Your task to perform on an android device: Go to privacy settings Image 0: 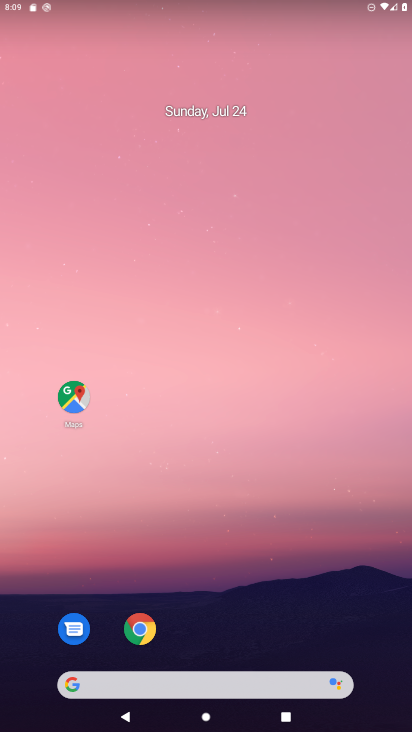
Step 0: drag from (367, 691) to (211, 6)
Your task to perform on an android device: Go to privacy settings Image 1: 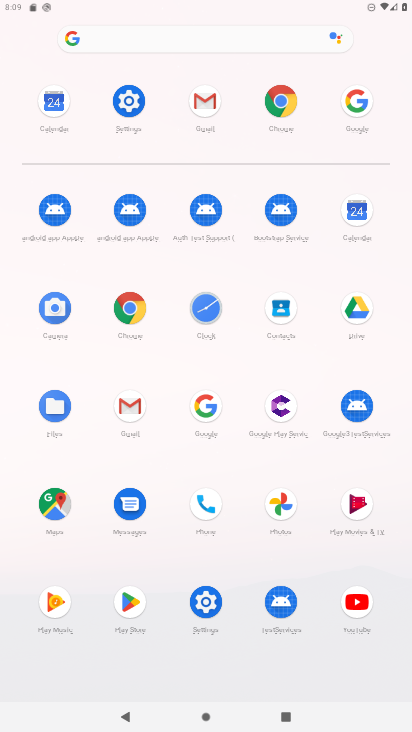
Step 1: click (213, 612)
Your task to perform on an android device: Go to privacy settings Image 2: 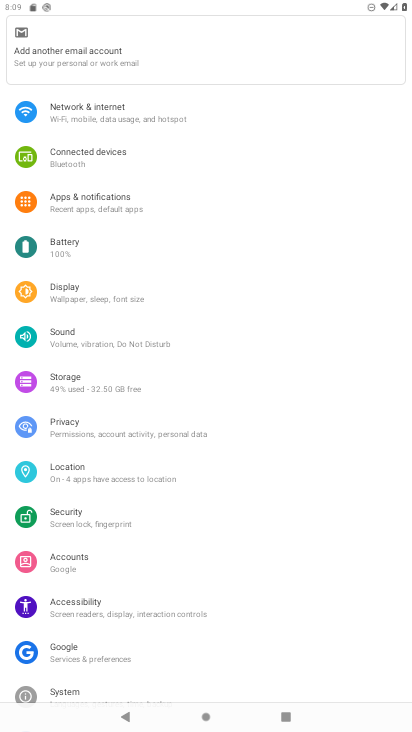
Step 2: click (75, 434)
Your task to perform on an android device: Go to privacy settings Image 3: 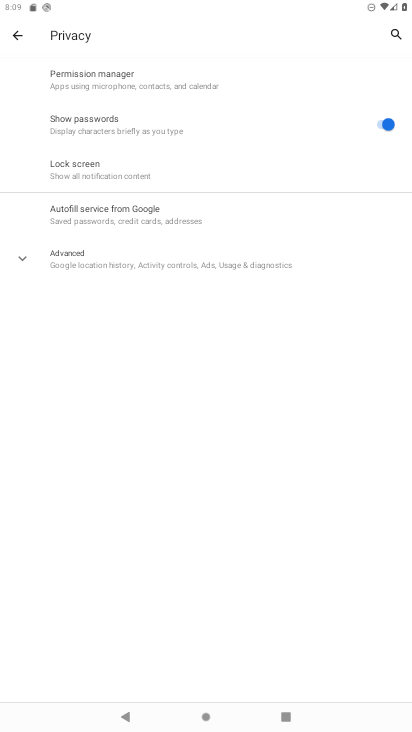
Step 3: task complete